Your task to perform on an android device: set default search engine in the chrome app Image 0: 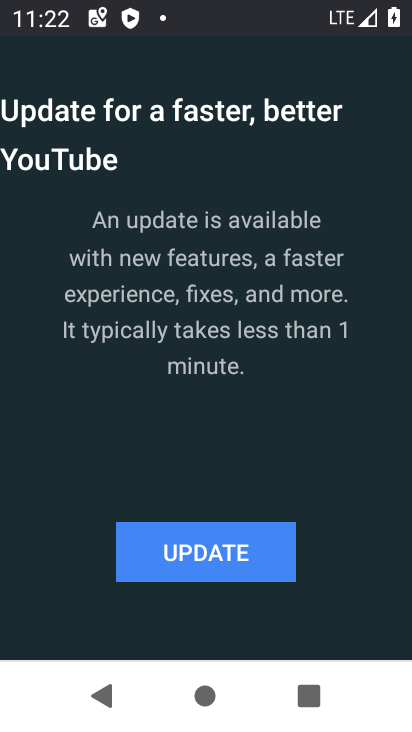
Step 0: press back button
Your task to perform on an android device: set default search engine in the chrome app Image 1: 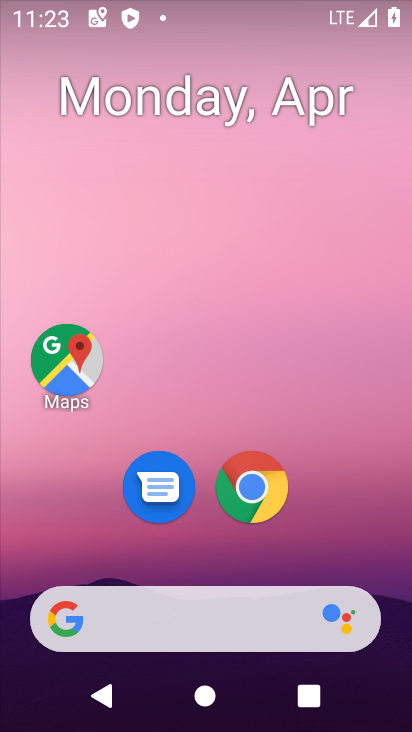
Step 1: drag from (402, 561) to (324, 15)
Your task to perform on an android device: set default search engine in the chrome app Image 2: 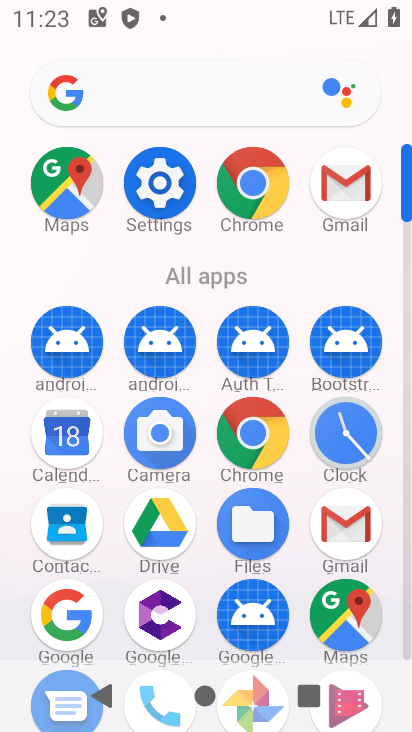
Step 2: click (263, 200)
Your task to perform on an android device: set default search engine in the chrome app Image 3: 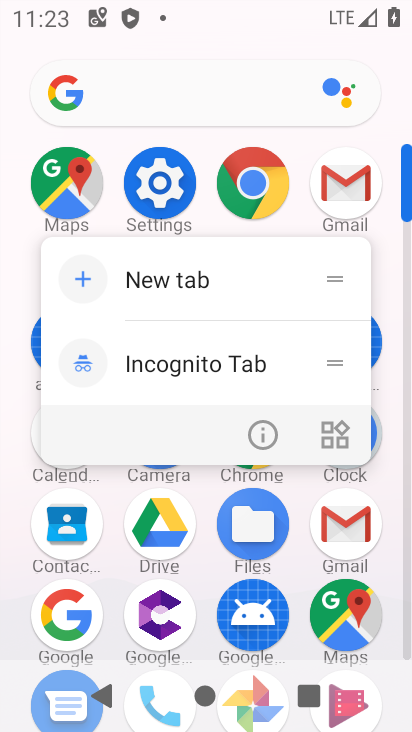
Step 3: click (265, 146)
Your task to perform on an android device: set default search engine in the chrome app Image 4: 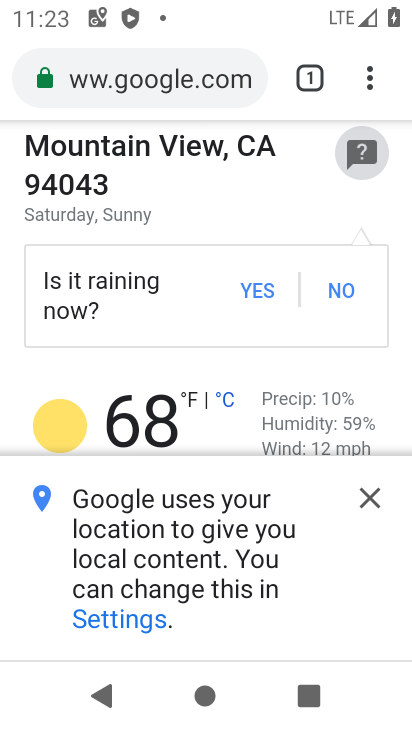
Step 4: click (372, 64)
Your task to perform on an android device: set default search engine in the chrome app Image 5: 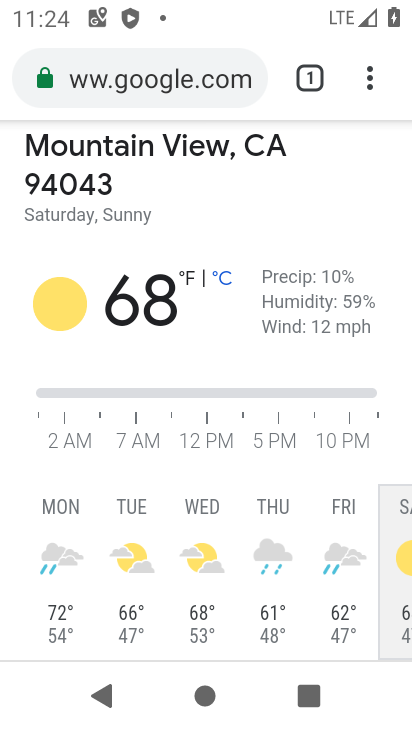
Step 5: drag from (370, 95) to (261, 549)
Your task to perform on an android device: set default search engine in the chrome app Image 6: 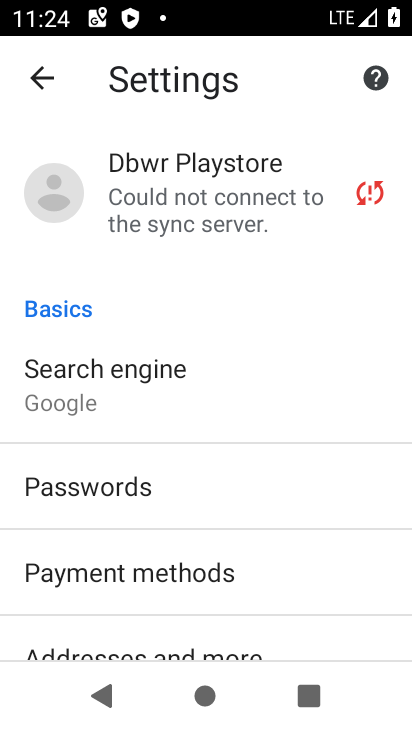
Step 6: click (244, 419)
Your task to perform on an android device: set default search engine in the chrome app Image 7: 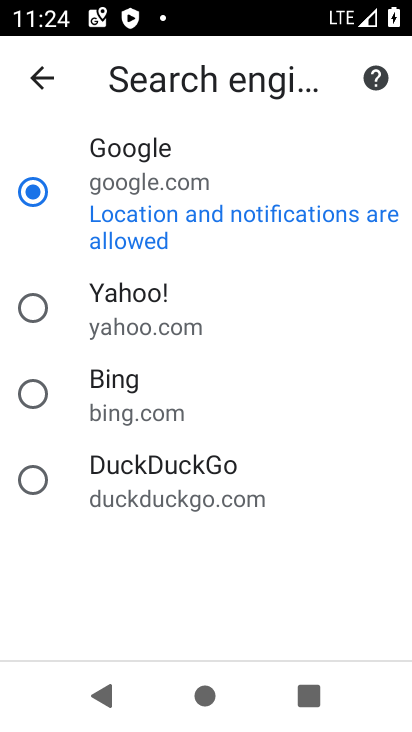
Step 7: task complete